Your task to perform on an android device: Open privacy settings Image 0: 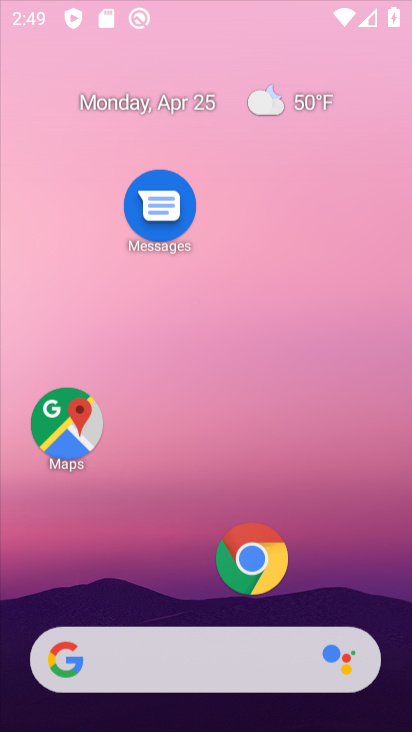
Step 0: click (235, 188)
Your task to perform on an android device: Open privacy settings Image 1: 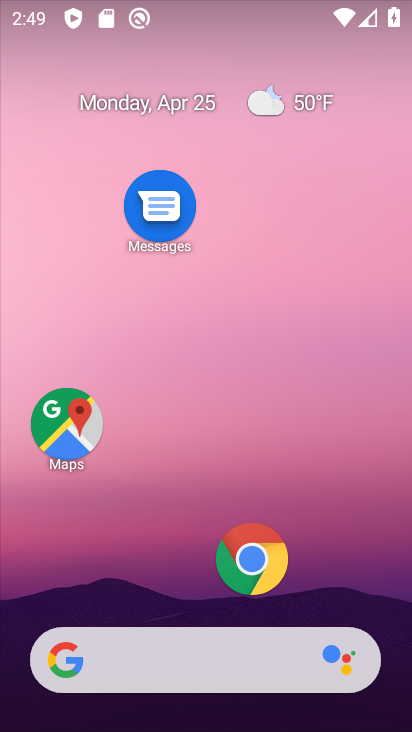
Step 1: drag from (171, 585) to (253, 6)
Your task to perform on an android device: Open privacy settings Image 2: 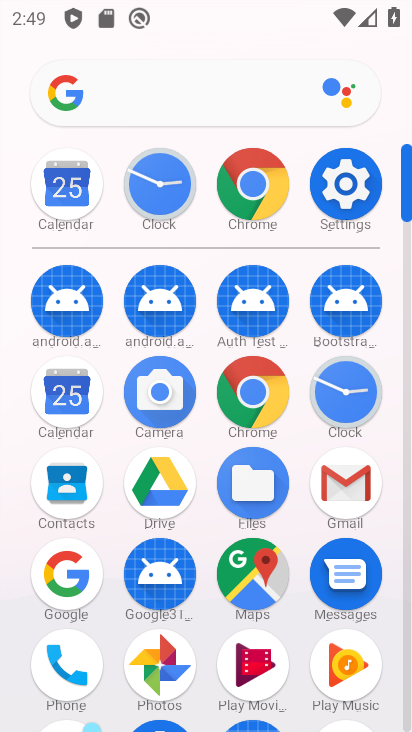
Step 2: click (348, 205)
Your task to perform on an android device: Open privacy settings Image 3: 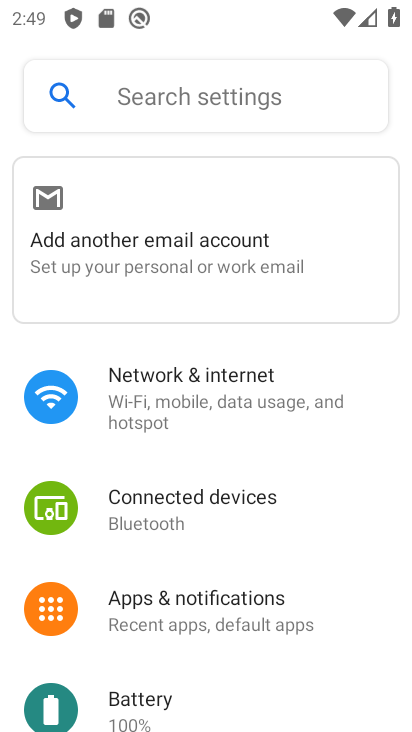
Step 3: drag from (191, 604) to (249, 189)
Your task to perform on an android device: Open privacy settings Image 4: 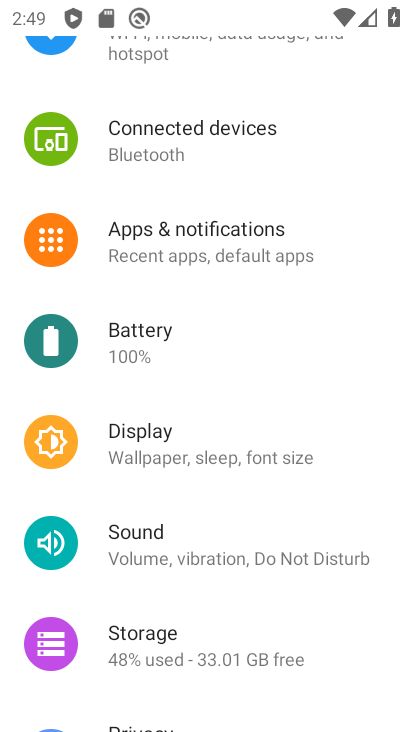
Step 4: drag from (214, 578) to (281, 138)
Your task to perform on an android device: Open privacy settings Image 5: 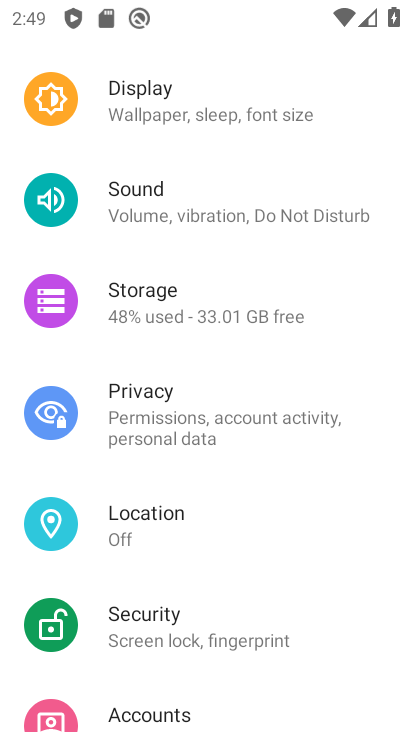
Step 5: click (174, 440)
Your task to perform on an android device: Open privacy settings Image 6: 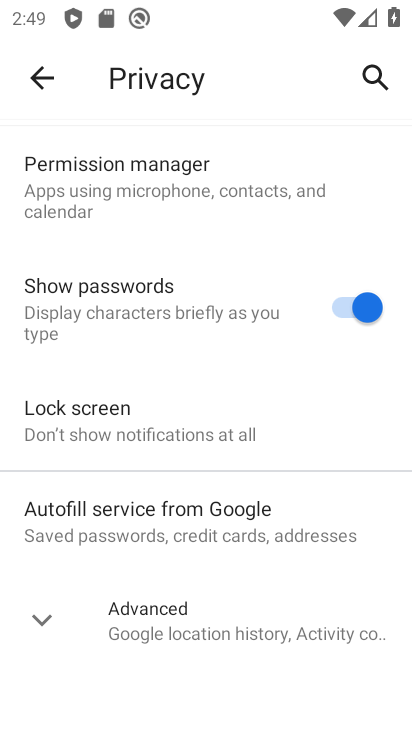
Step 6: task complete